Your task to perform on an android device: Open settings on Google Maps Image 0: 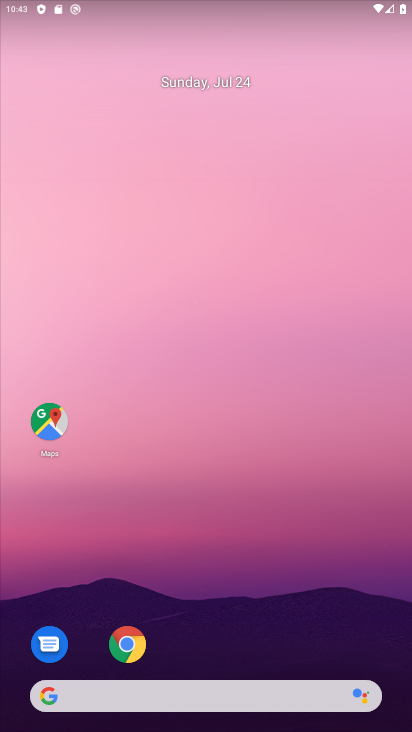
Step 0: click (49, 427)
Your task to perform on an android device: Open settings on Google Maps Image 1: 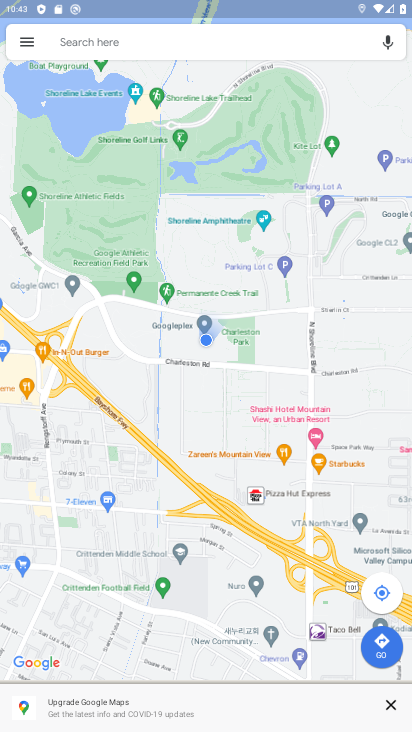
Step 1: click (29, 44)
Your task to perform on an android device: Open settings on Google Maps Image 2: 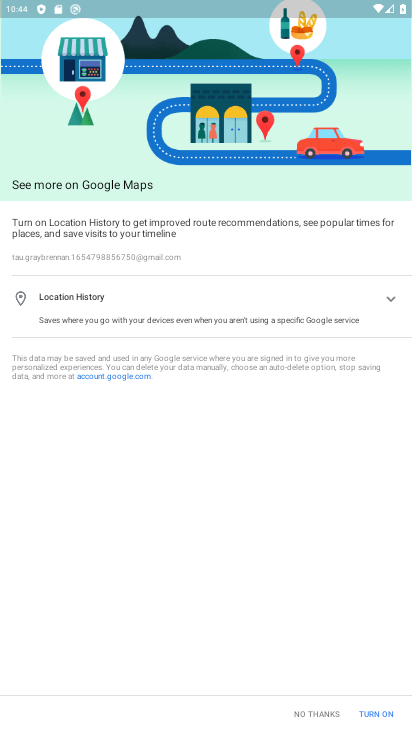
Step 2: drag from (133, 501) to (145, 375)
Your task to perform on an android device: Open settings on Google Maps Image 3: 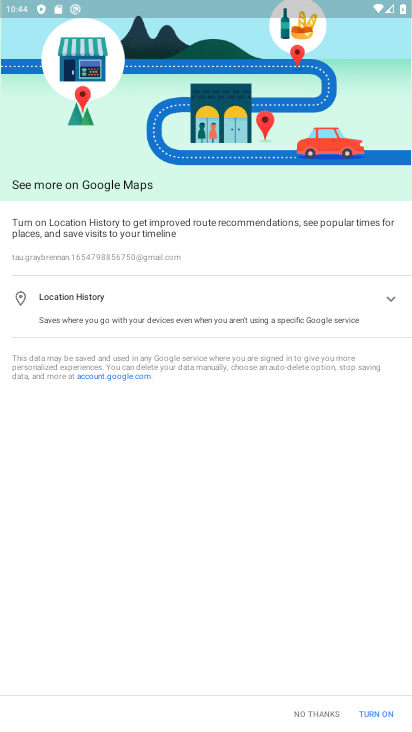
Step 3: click (289, 713)
Your task to perform on an android device: Open settings on Google Maps Image 4: 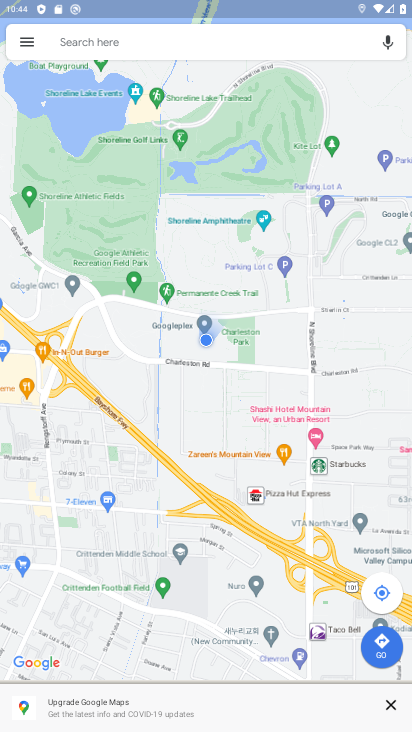
Step 4: click (29, 43)
Your task to perform on an android device: Open settings on Google Maps Image 5: 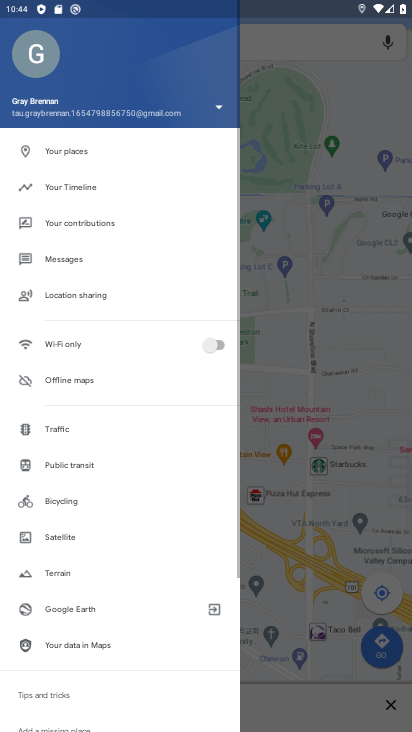
Step 5: drag from (91, 626) to (74, 237)
Your task to perform on an android device: Open settings on Google Maps Image 6: 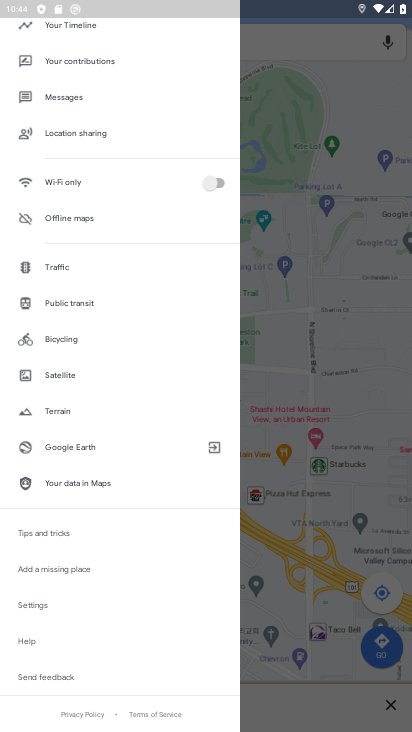
Step 6: click (42, 613)
Your task to perform on an android device: Open settings on Google Maps Image 7: 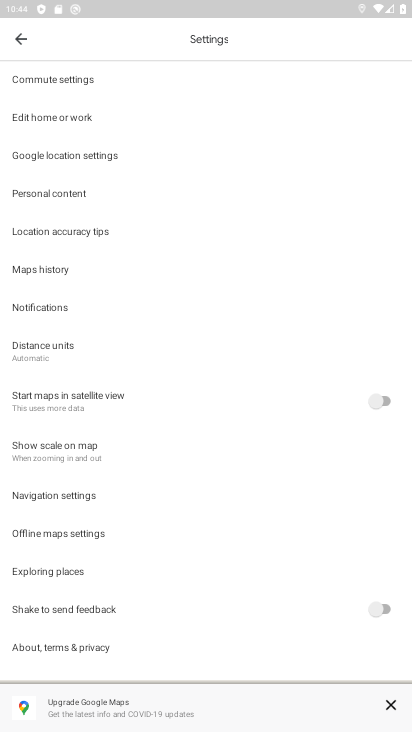
Step 7: task complete